Your task to perform on an android device: Is it going to rain today? Image 0: 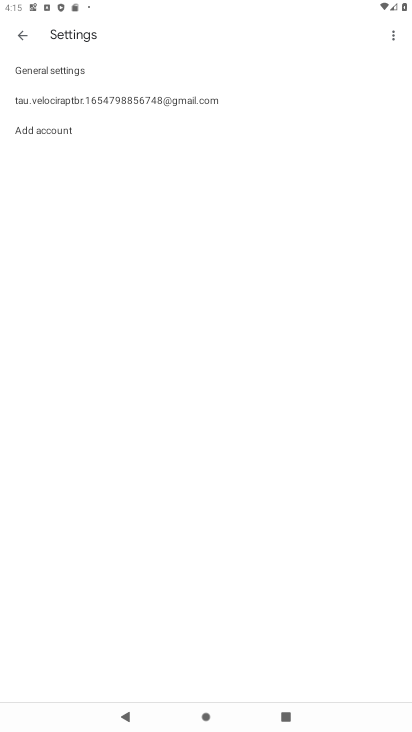
Step 0: press home button
Your task to perform on an android device: Is it going to rain today? Image 1: 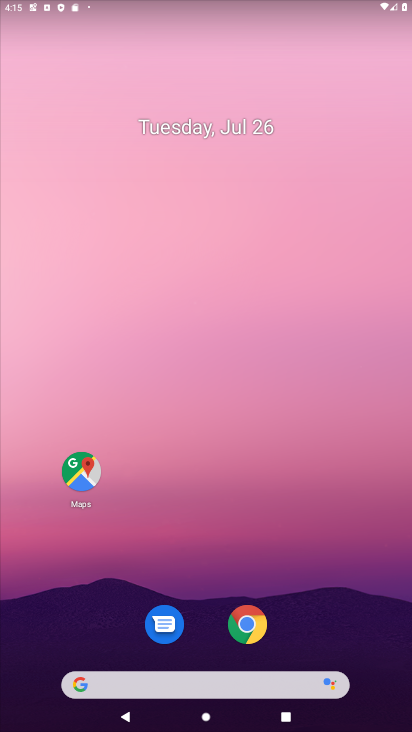
Step 1: drag from (340, 674) to (354, 4)
Your task to perform on an android device: Is it going to rain today? Image 2: 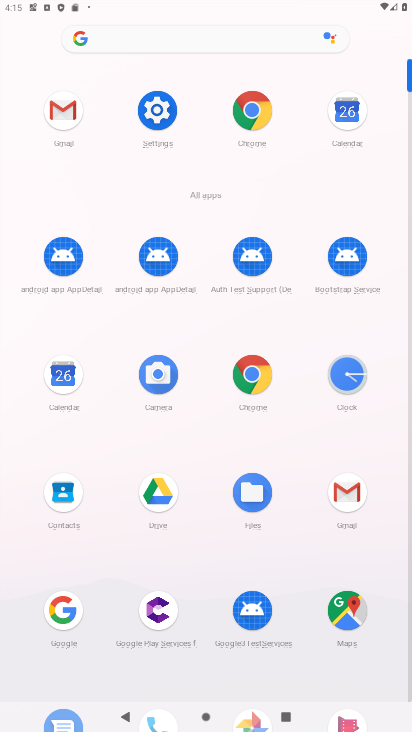
Step 2: click (266, 373)
Your task to perform on an android device: Is it going to rain today? Image 3: 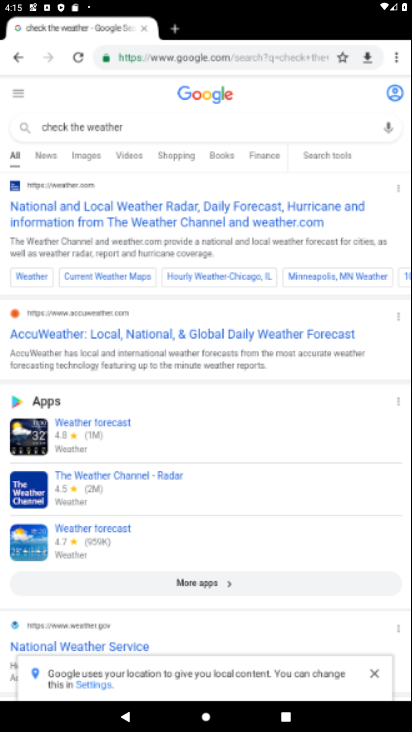
Step 3: click (255, 55)
Your task to perform on an android device: Is it going to rain today? Image 4: 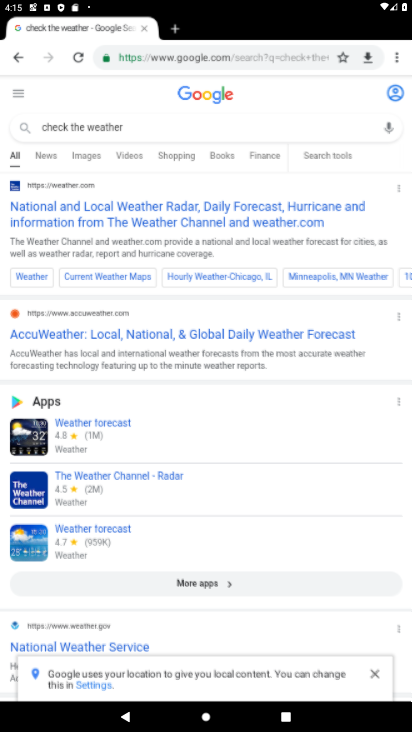
Step 4: click (255, 55)
Your task to perform on an android device: Is it going to rain today? Image 5: 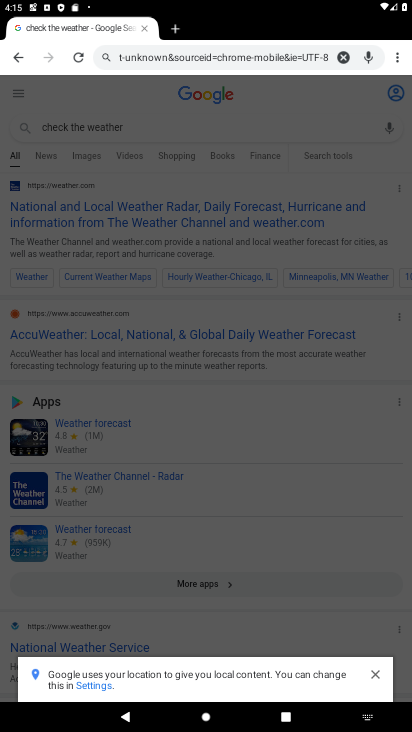
Step 5: type "going to rain today"
Your task to perform on an android device: Is it going to rain today? Image 6: 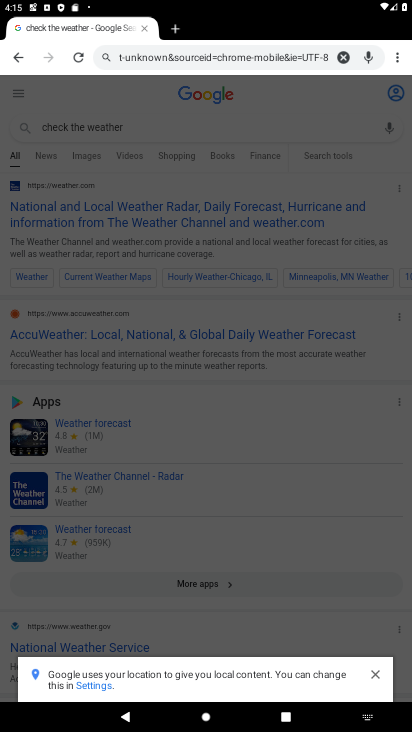
Step 6: click (342, 52)
Your task to perform on an android device: Is it going to rain today? Image 7: 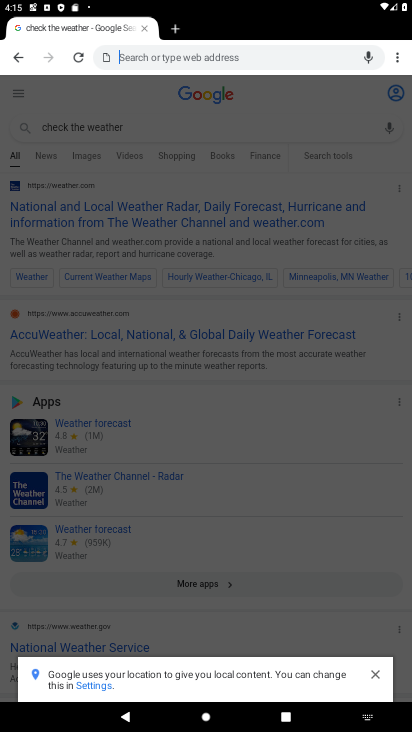
Step 7: type "going to rain today"
Your task to perform on an android device: Is it going to rain today? Image 8: 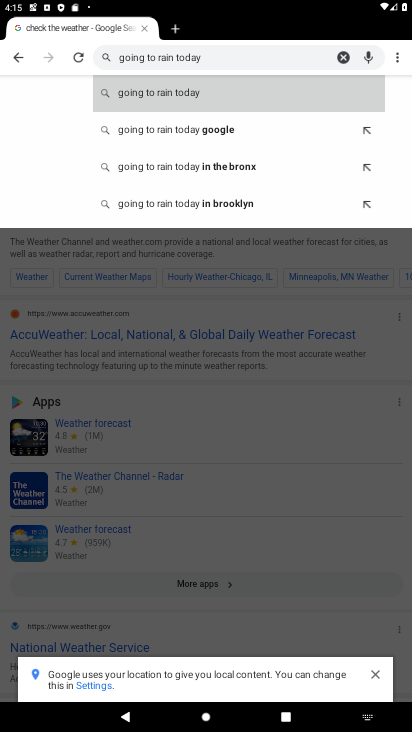
Step 8: click (268, 96)
Your task to perform on an android device: Is it going to rain today? Image 9: 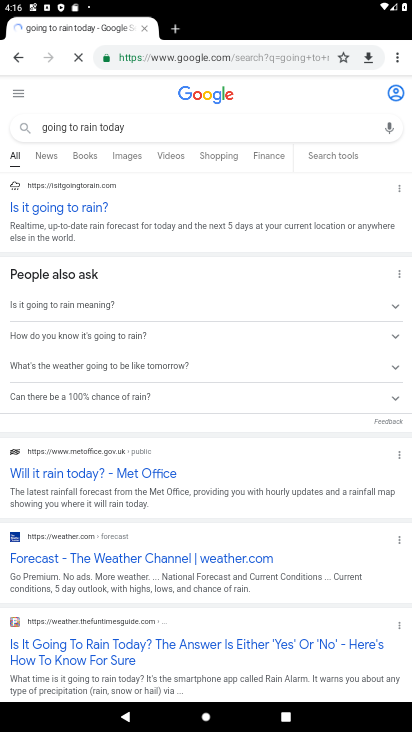
Step 9: task complete